Your task to perform on an android device: find snoozed emails in the gmail app Image 0: 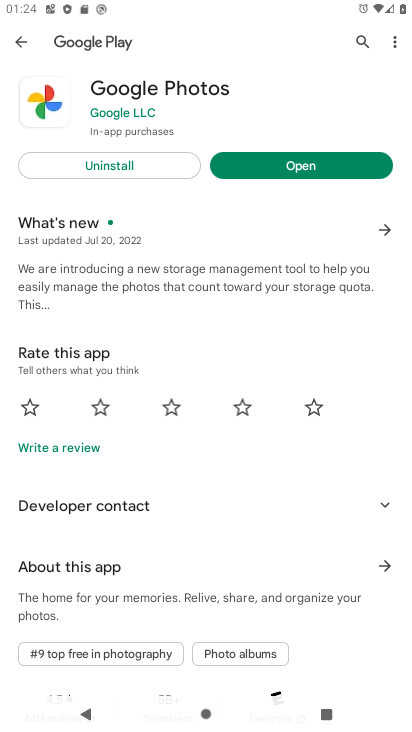
Step 0: press home button
Your task to perform on an android device: find snoozed emails in the gmail app Image 1: 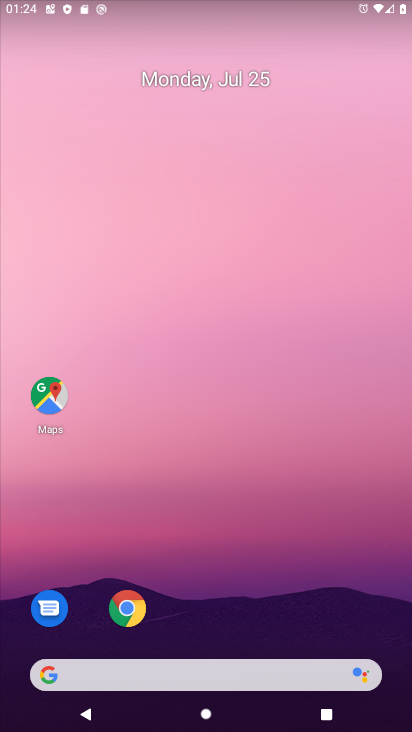
Step 1: drag from (235, 610) to (240, 18)
Your task to perform on an android device: find snoozed emails in the gmail app Image 2: 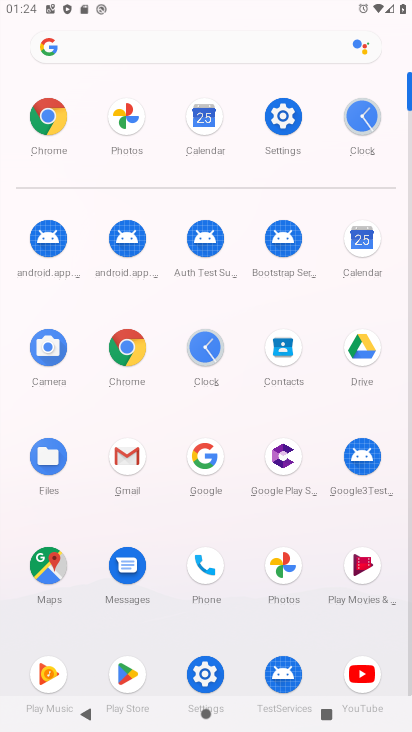
Step 2: click (133, 452)
Your task to perform on an android device: find snoozed emails in the gmail app Image 3: 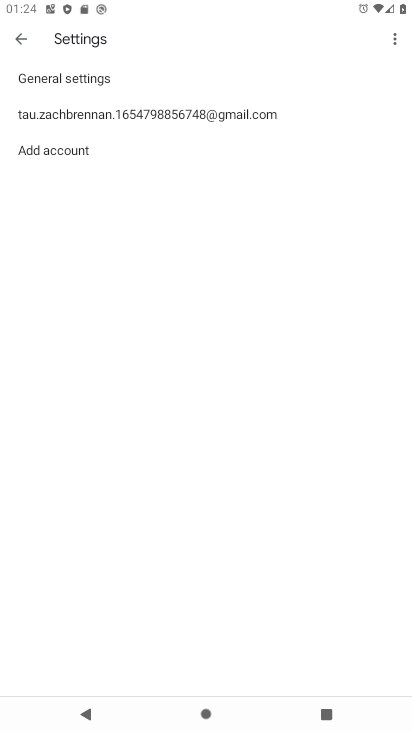
Step 3: click (24, 32)
Your task to perform on an android device: find snoozed emails in the gmail app Image 4: 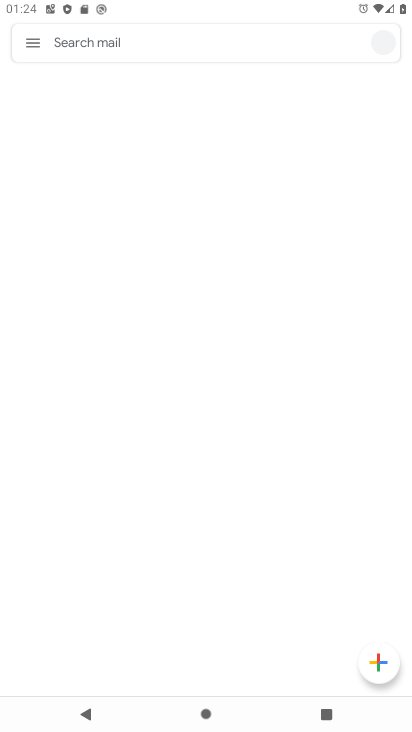
Step 4: click (24, 32)
Your task to perform on an android device: find snoozed emails in the gmail app Image 5: 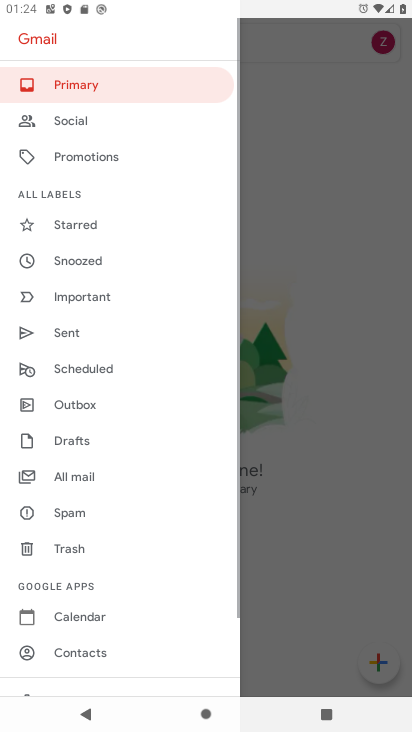
Step 5: click (84, 246)
Your task to perform on an android device: find snoozed emails in the gmail app Image 6: 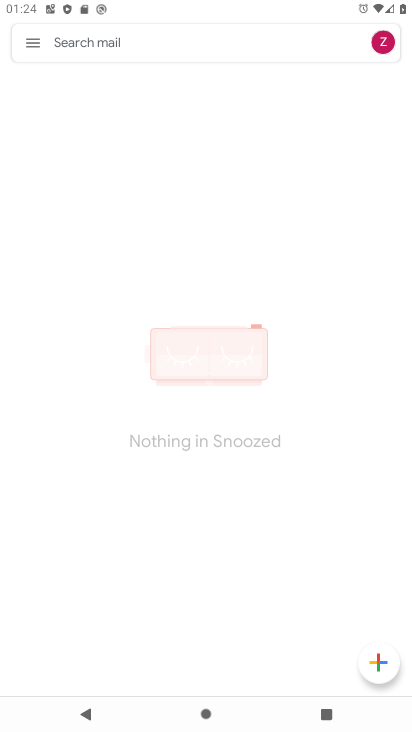
Step 6: task complete